Your task to perform on an android device: Search for sushi restaurants on Maps Image 0: 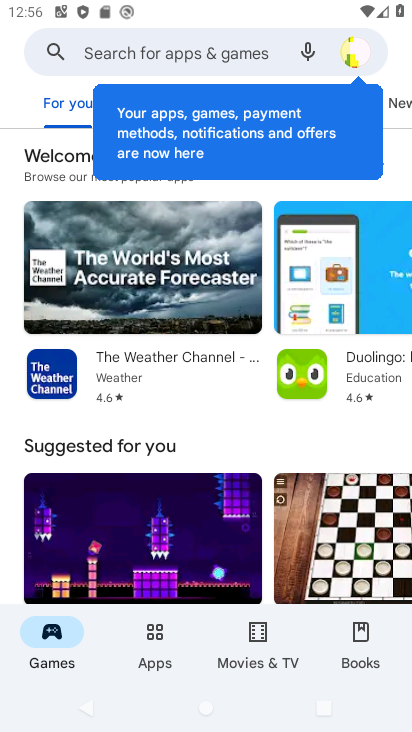
Step 0: press home button
Your task to perform on an android device: Search for sushi restaurants on Maps Image 1: 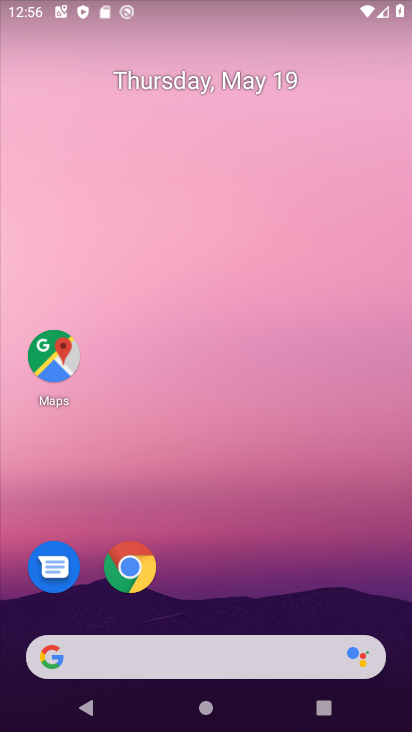
Step 1: click (59, 355)
Your task to perform on an android device: Search for sushi restaurants on Maps Image 2: 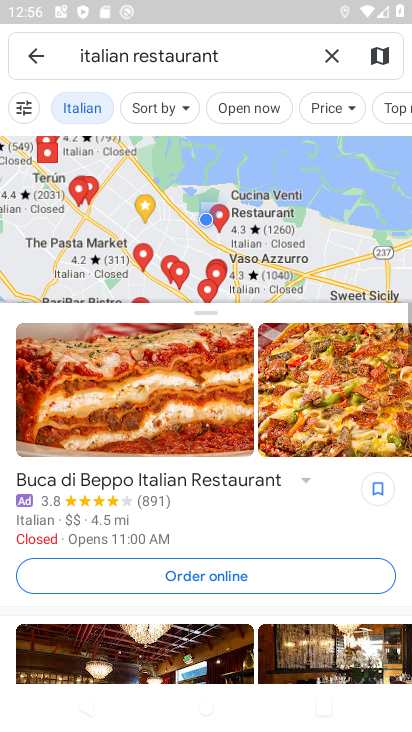
Step 2: click (338, 61)
Your task to perform on an android device: Search for sushi restaurants on Maps Image 3: 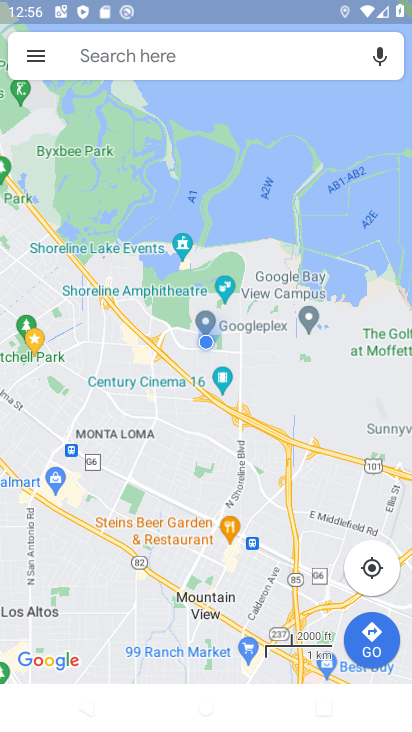
Step 3: click (192, 57)
Your task to perform on an android device: Search for sushi restaurants on Maps Image 4: 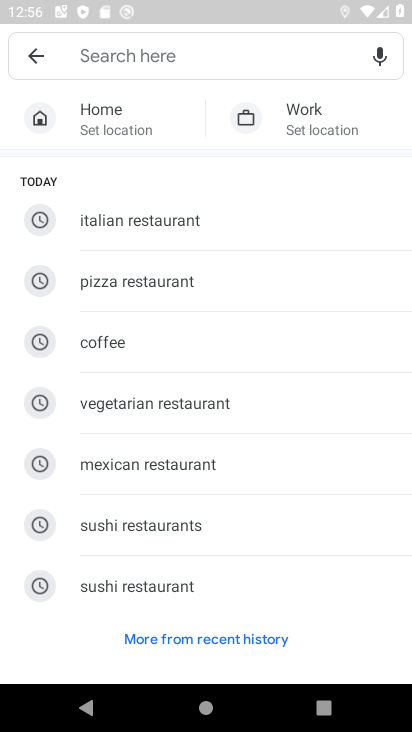
Step 4: click (167, 534)
Your task to perform on an android device: Search for sushi restaurants on Maps Image 5: 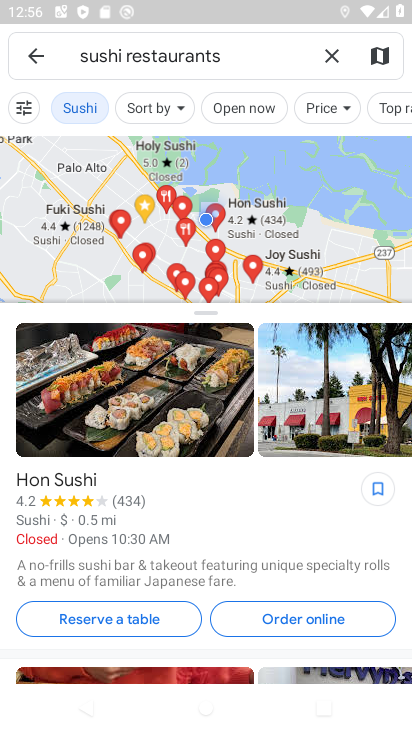
Step 5: task complete